Your task to perform on an android device: see sites visited before in the chrome app Image 0: 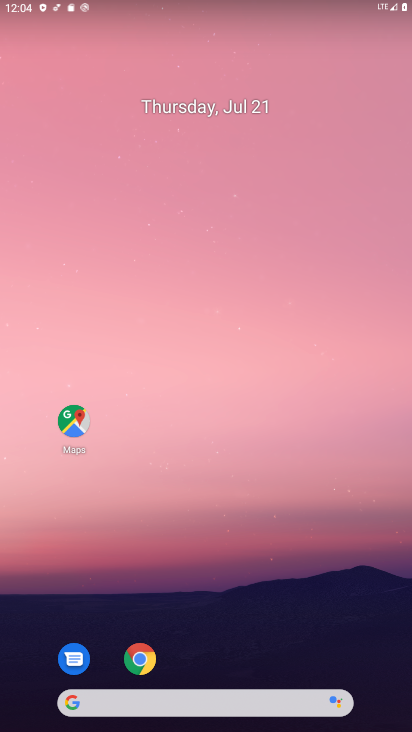
Step 0: click (185, 664)
Your task to perform on an android device: see sites visited before in the chrome app Image 1: 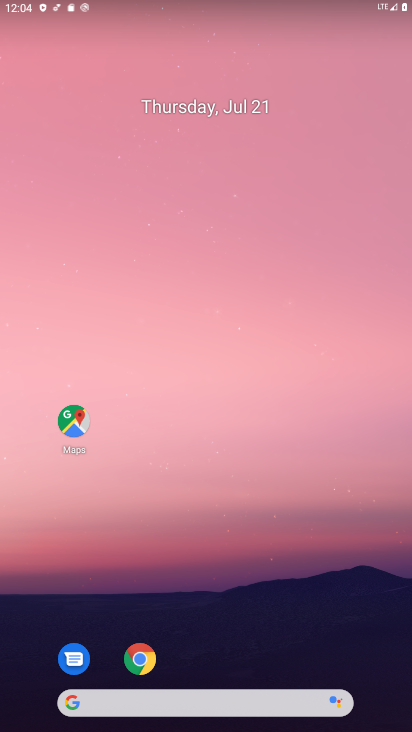
Step 1: click (132, 658)
Your task to perform on an android device: see sites visited before in the chrome app Image 2: 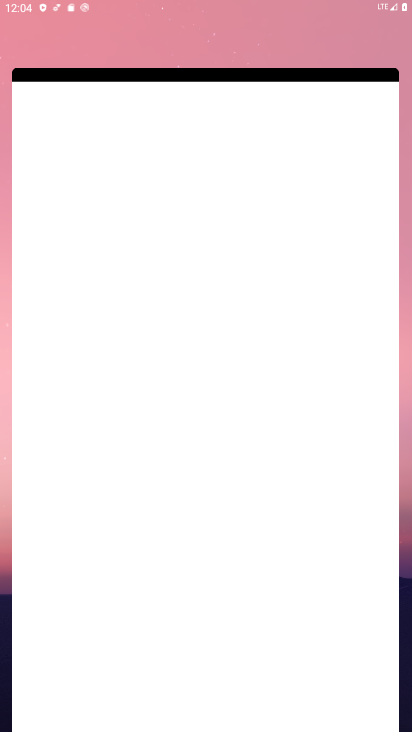
Step 2: click (140, 663)
Your task to perform on an android device: see sites visited before in the chrome app Image 3: 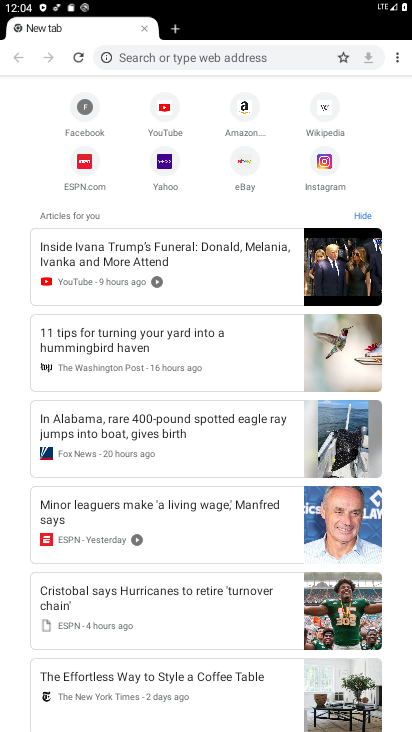
Step 3: click (397, 49)
Your task to perform on an android device: see sites visited before in the chrome app Image 4: 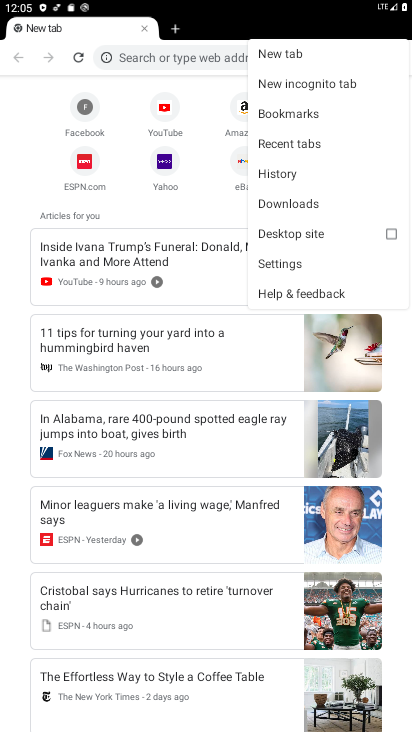
Step 4: click (267, 175)
Your task to perform on an android device: see sites visited before in the chrome app Image 5: 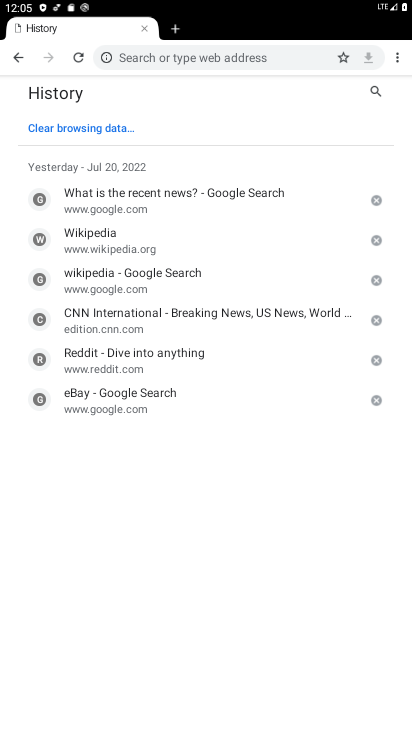
Step 5: task complete